Your task to perform on an android device: What's the weather today? Image 0: 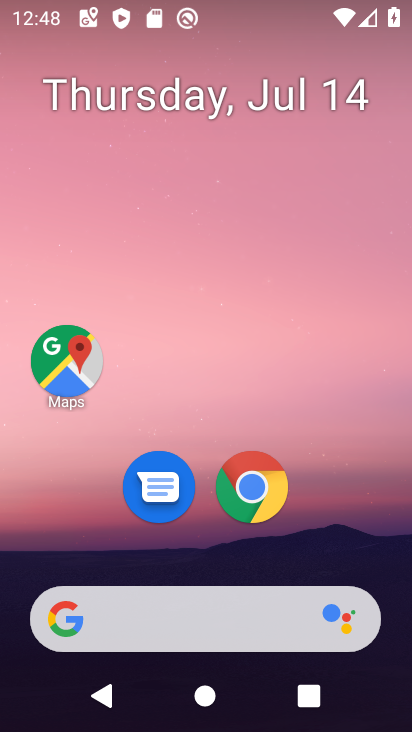
Step 0: drag from (258, 564) to (292, 114)
Your task to perform on an android device: What's the weather today? Image 1: 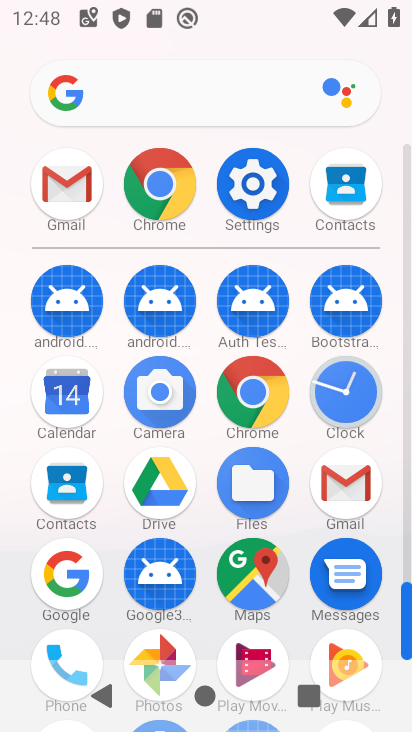
Step 1: drag from (240, 523) to (244, 283)
Your task to perform on an android device: What's the weather today? Image 2: 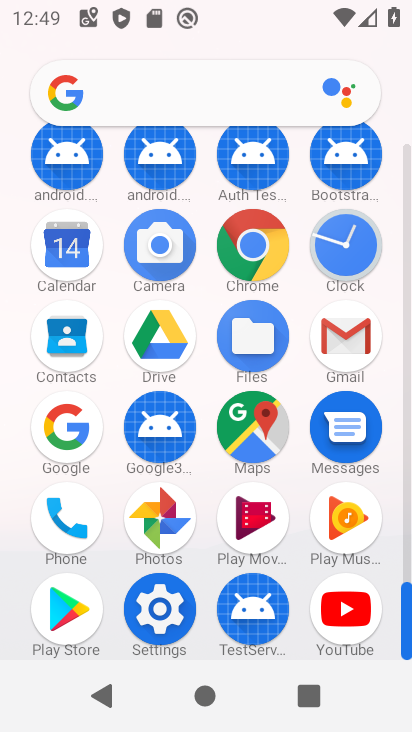
Step 2: click (85, 429)
Your task to perform on an android device: What's the weather today? Image 3: 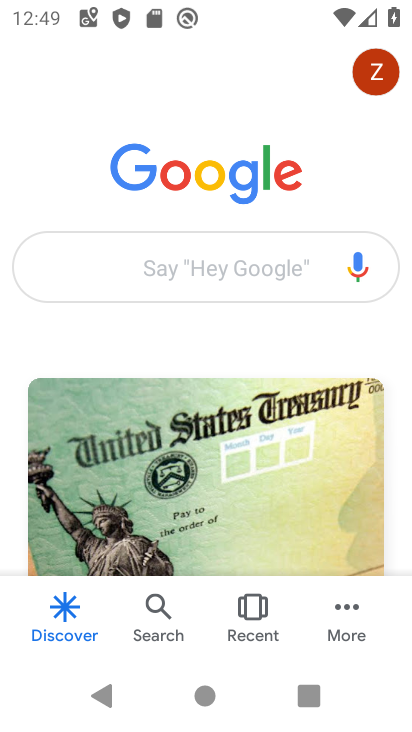
Step 3: click (225, 281)
Your task to perform on an android device: What's the weather today? Image 4: 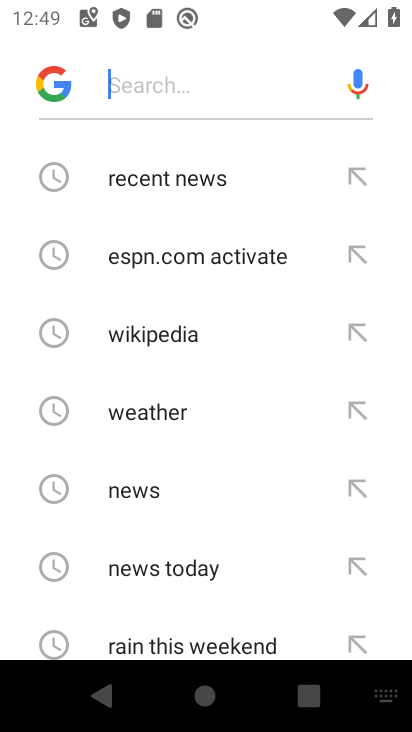
Step 4: click (209, 412)
Your task to perform on an android device: What's the weather today? Image 5: 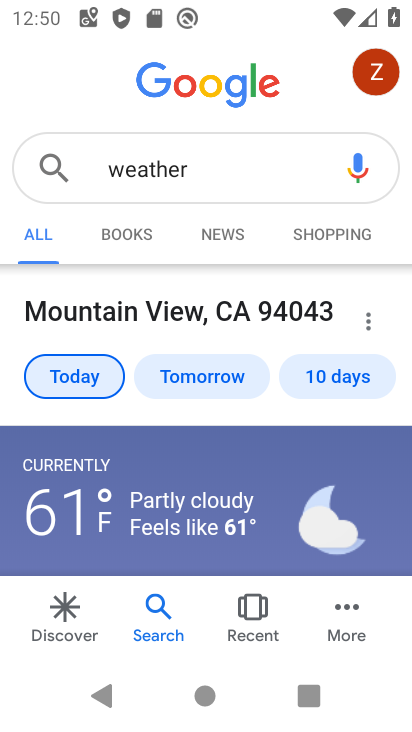
Step 5: task complete